Your task to perform on an android device: find photos in the google photos app Image 0: 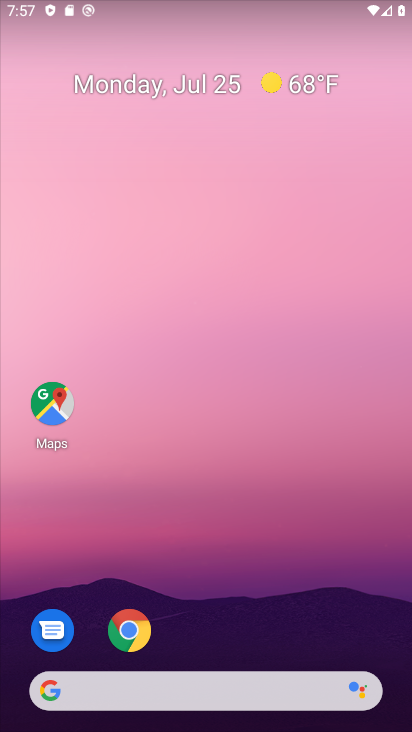
Step 0: drag from (186, 611) to (314, 130)
Your task to perform on an android device: find photos in the google photos app Image 1: 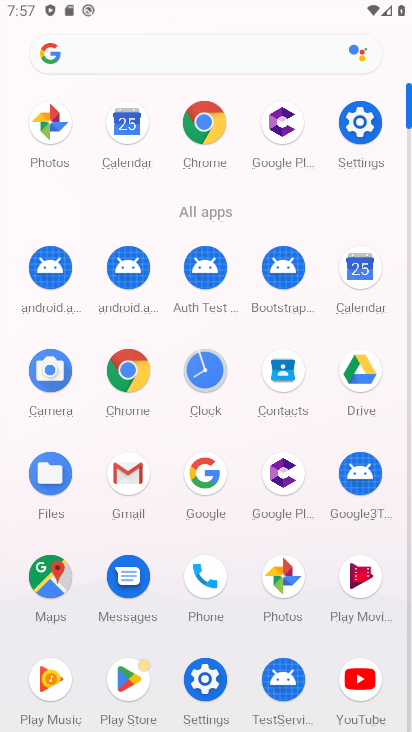
Step 1: drag from (236, 551) to (320, 158)
Your task to perform on an android device: find photos in the google photos app Image 2: 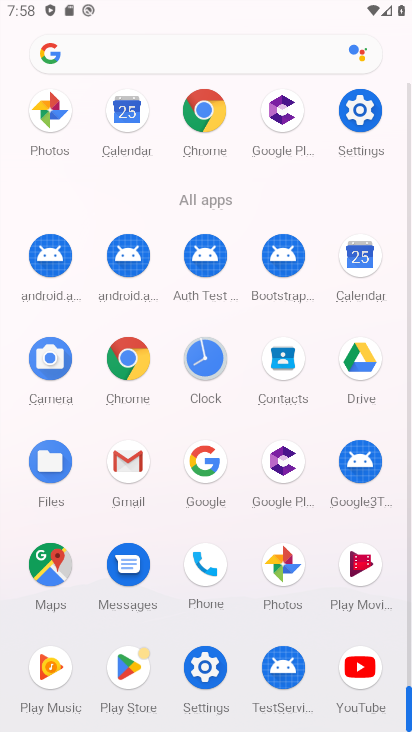
Step 2: click (279, 557)
Your task to perform on an android device: find photos in the google photos app Image 3: 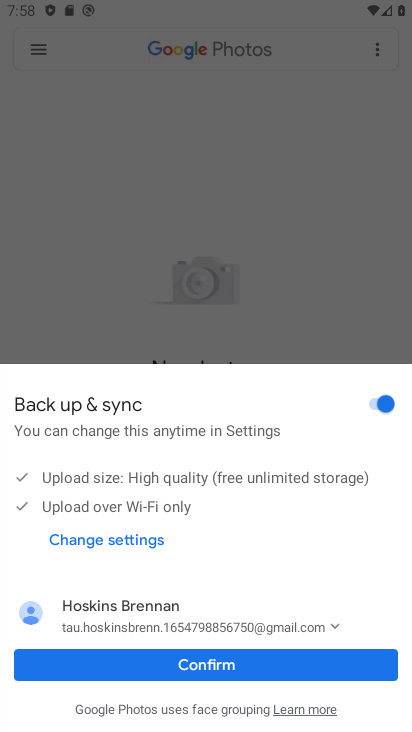
Step 3: click (206, 659)
Your task to perform on an android device: find photos in the google photos app Image 4: 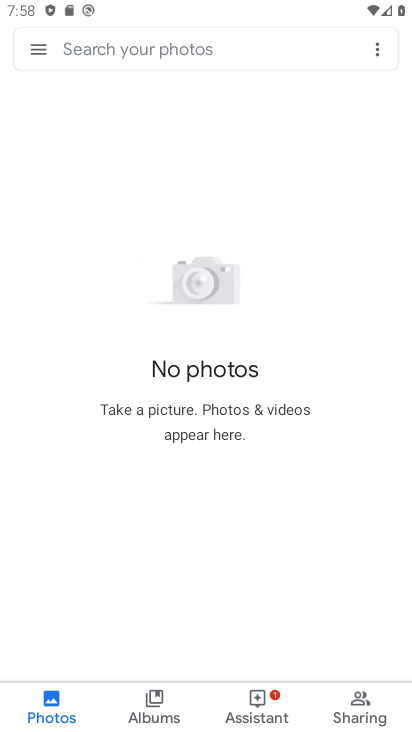
Step 4: click (57, 698)
Your task to perform on an android device: find photos in the google photos app Image 5: 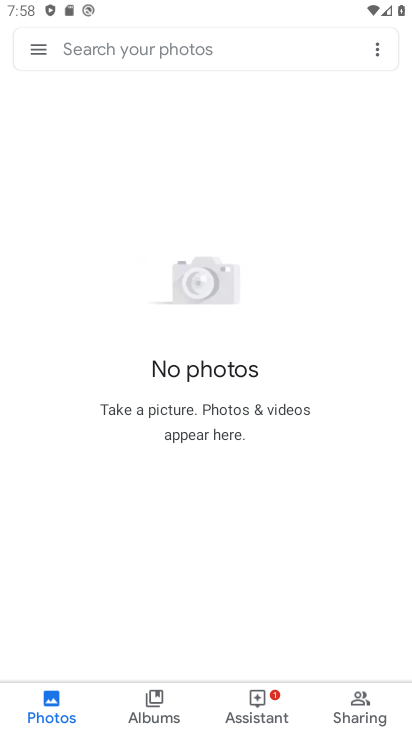
Step 5: task complete